Your task to perform on an android device: Empty the shopping cart on bestbuy.com. Search for acer predator on bestbuy.com, select the first entry, and add it to the cart. Image 0: 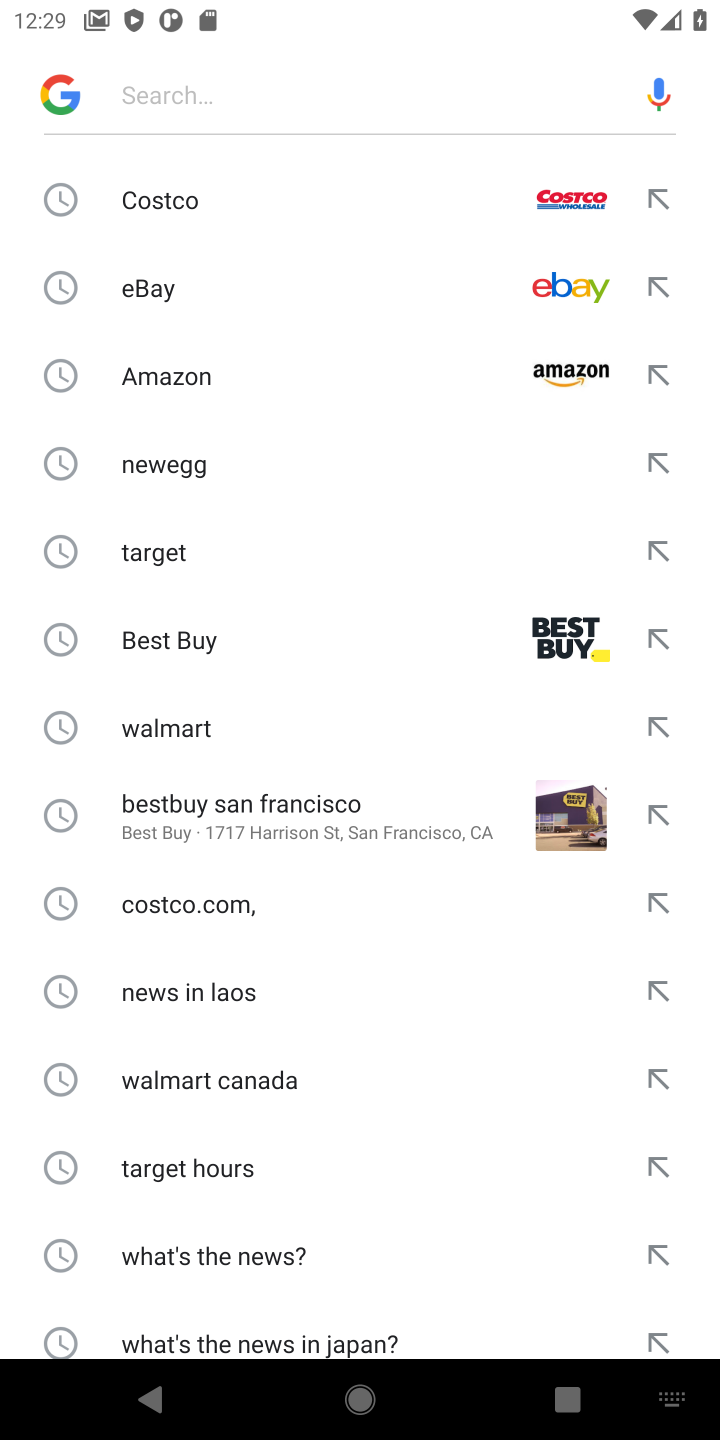
Step 0: click (209, 630)
Your task to perform on an android device: Empty the shopping cart on bestbuy.com. Search for acer predator on bestbuy.com, select the first entry, and add it to the cart. Image 1: 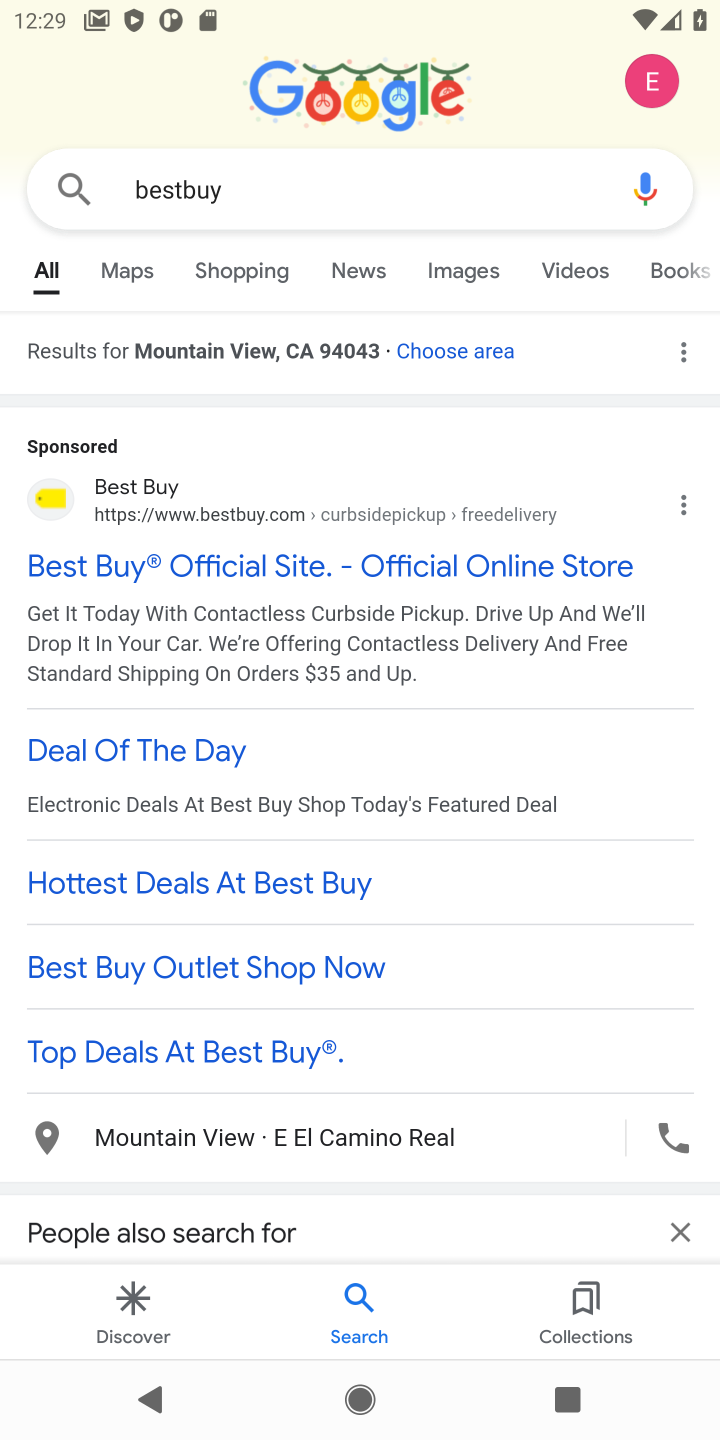
Step 1: click (155, 560)
Your task to perform on an android device: Empty the shopping cart on bestbuy.com. Search for acer predator on bestbuy.com, select the first entry, and add it to the cart. Image 2: 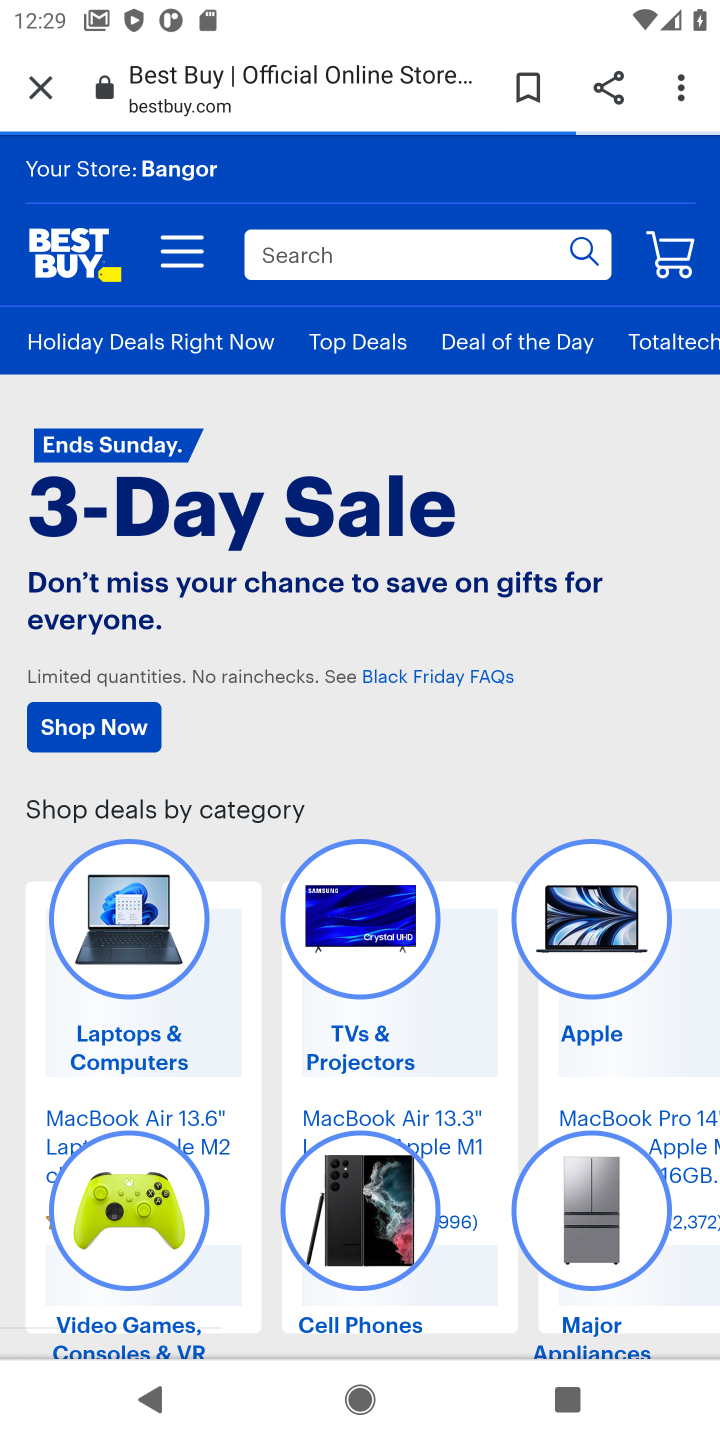
Step 2: click (432, 266)
Your task to perform on an android device: Empty the shopping cart on bestbuy.com. Search for acer predator on bestbuy.com, select the first entry, and add it to the cart. Image 3: 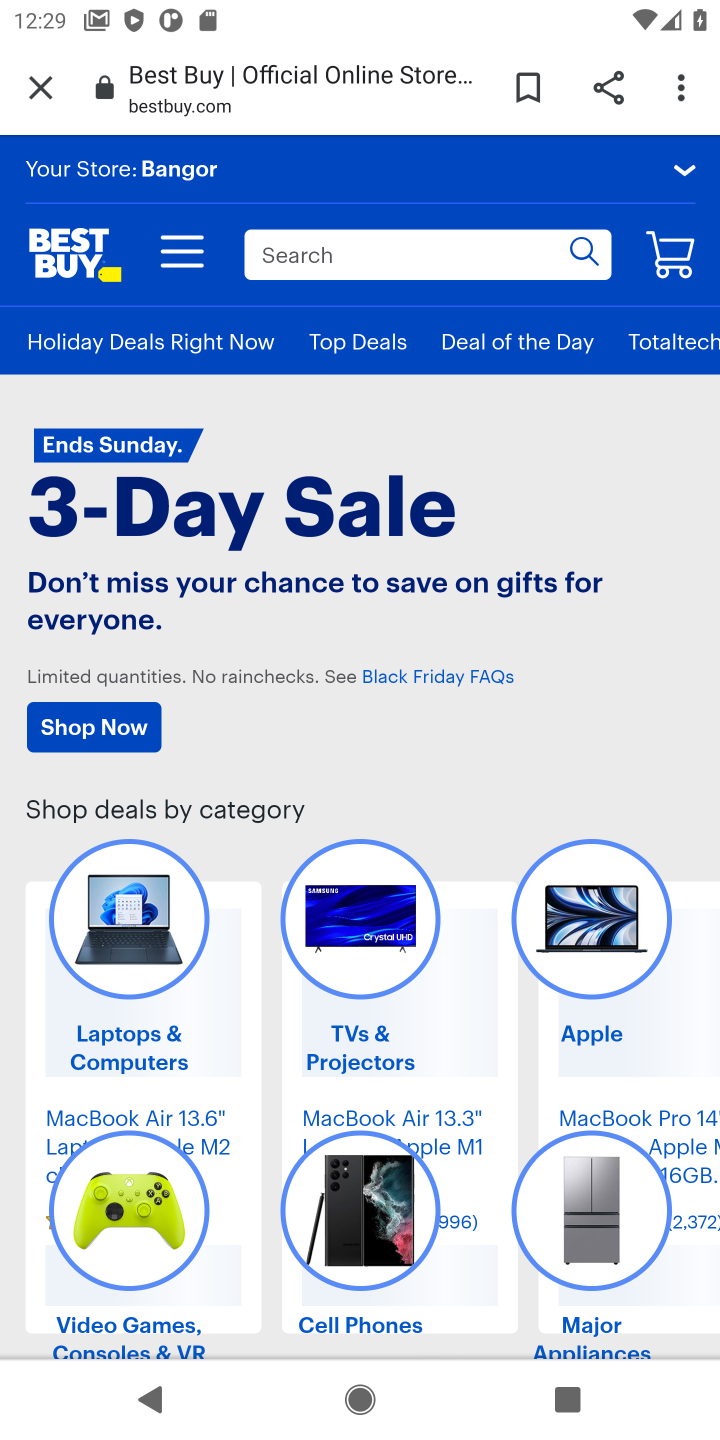
Step 3: type "acer predator"
Your task to perform on an android device: Empty the shopping cart on bestbuy.com. Search for acer predator on bestbuy.com, select the first entry, and add it to the cart. Image 4: 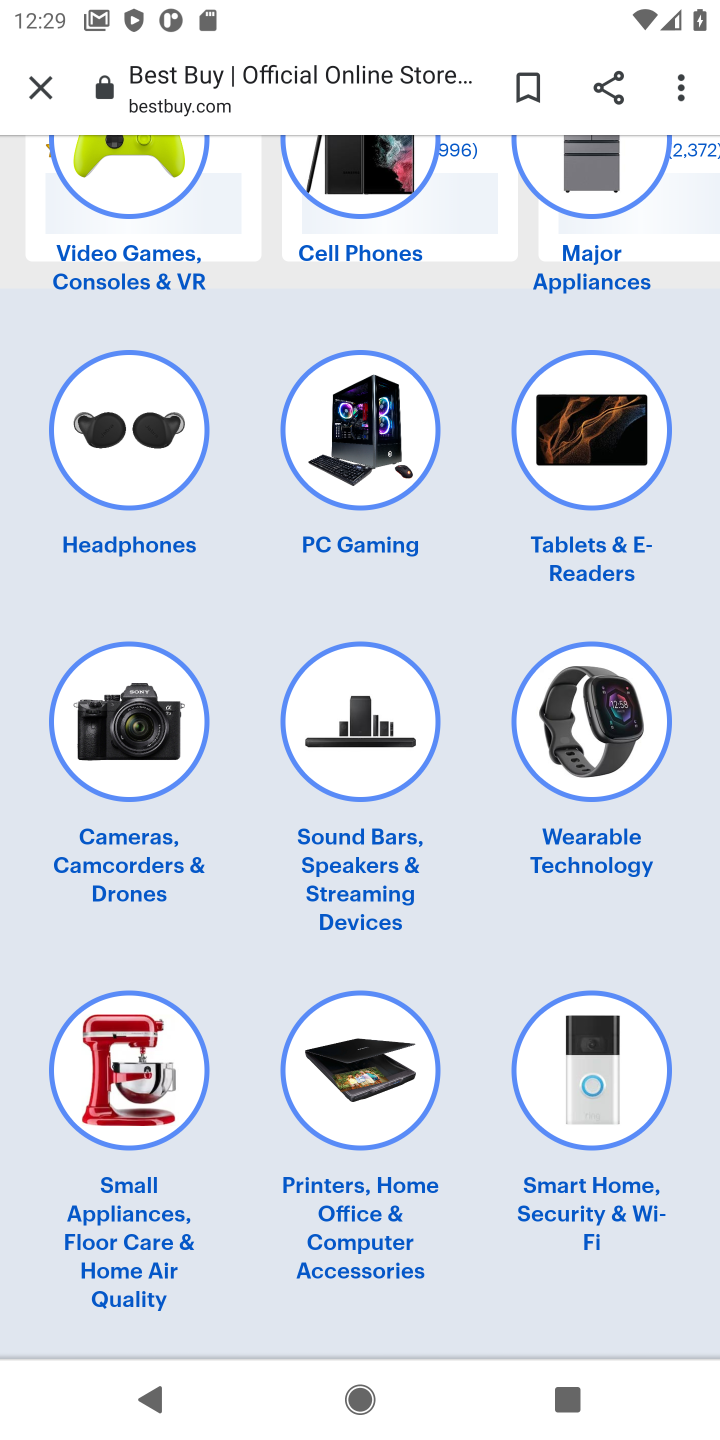
Step 4: task complete